Your task to perform on an android device: turn off smart reply in the gmail app Image 0: 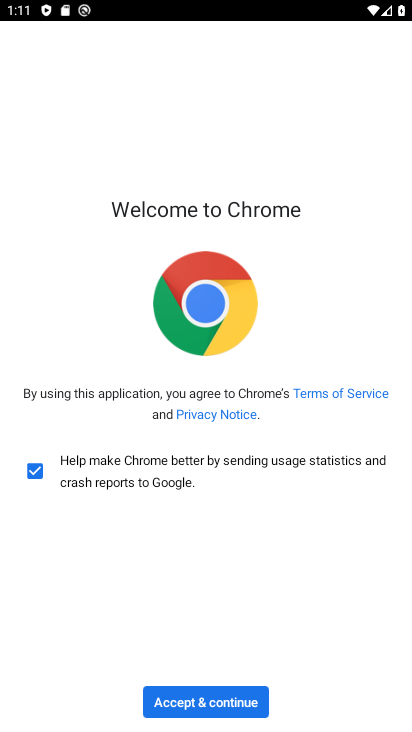
Step 0: press home button
Your task to perform on an android device: turn off smart reply in the gmail app Image 1: 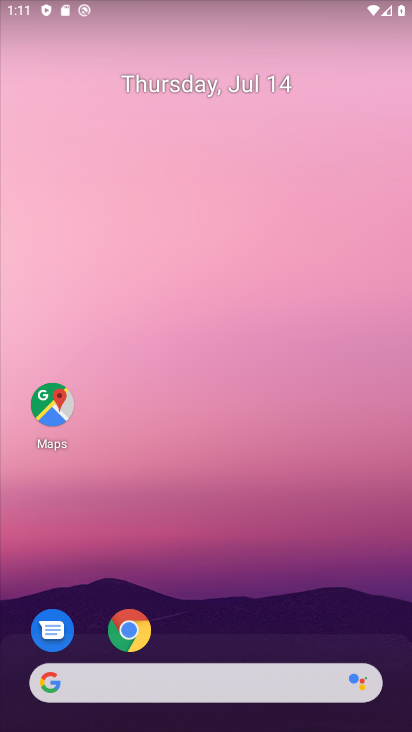
Step 1: drag from (218, 646) to (209, 77)
Your task to perform on an android device: turn off smart reply in the gmail app Image 2: 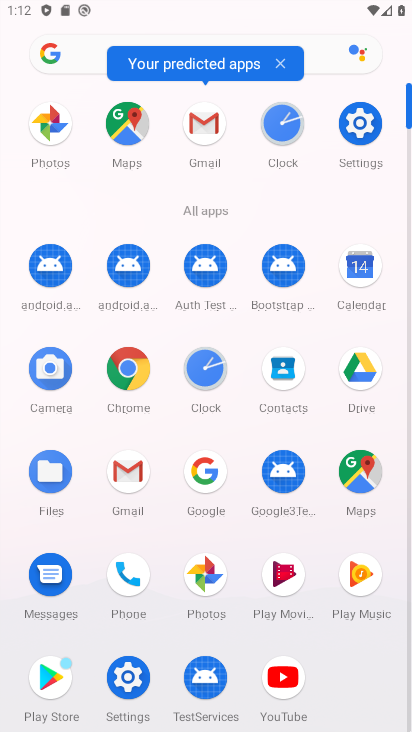
Step 2: click (127, 475)
Your task to perform on an android device: turn off smart reply in the gmail app Image 3: 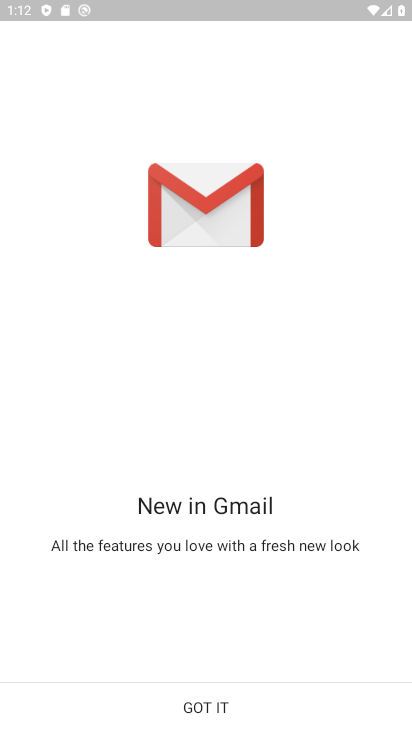
Step 3: click (236, 699)
Your task to perform on an android device: turn off smart reply in the gmail app Image 4: 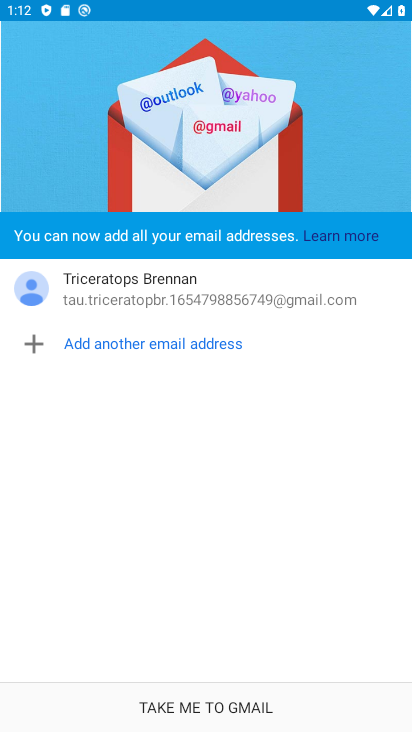
Step 4: click (249, 684)
Your task to perform on an android device: turn off smart reply in the gmail app Image 5: 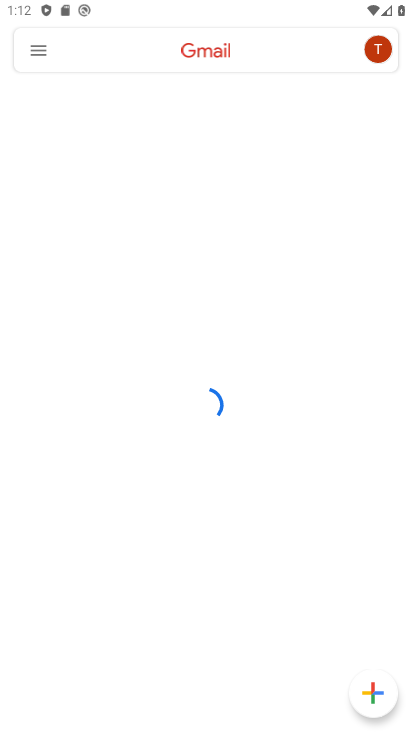
Step 5: click (35, 53)
Your task to perform on an android device: turn off smart reply in the gmail app Image 6: 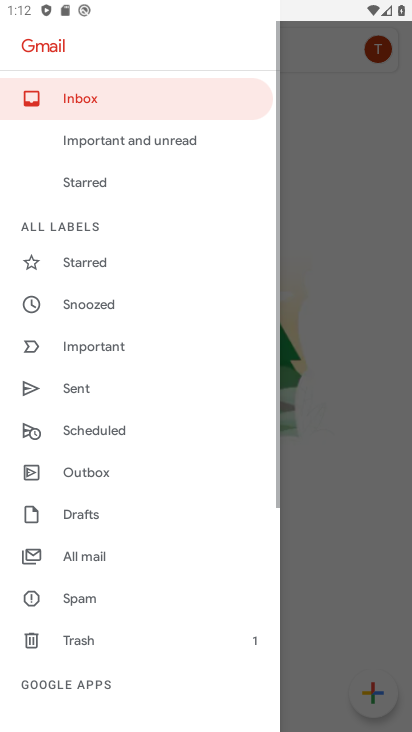
Step 6: drag from (66, 565) to (55, 131)
Your task to perform on an android device: turn off smart reply in the gmail app Image 7: 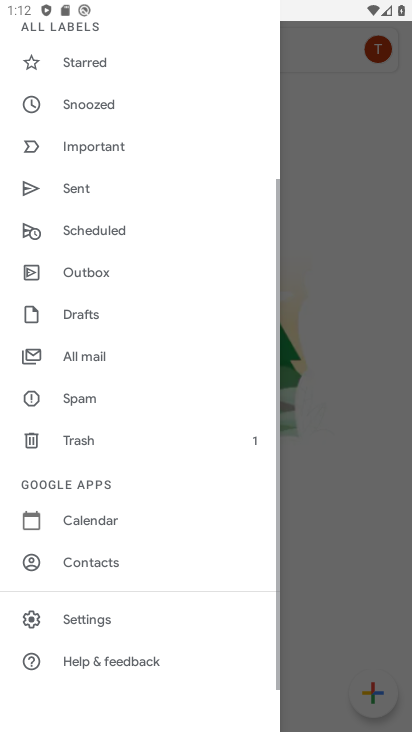
Step 7: click (102, 624)
Your task to perform on an android device: turn off smart reply in the gmail app Image 8: 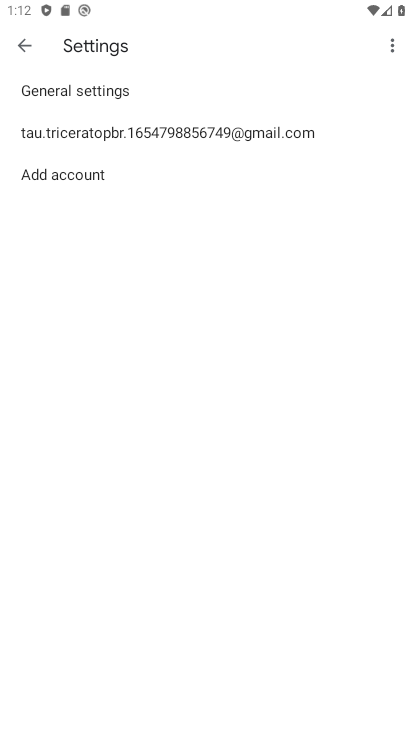
Step 8: click (40, 132)
Your task to perform on an android device: turn off smart reply in the gmail app Image 9: 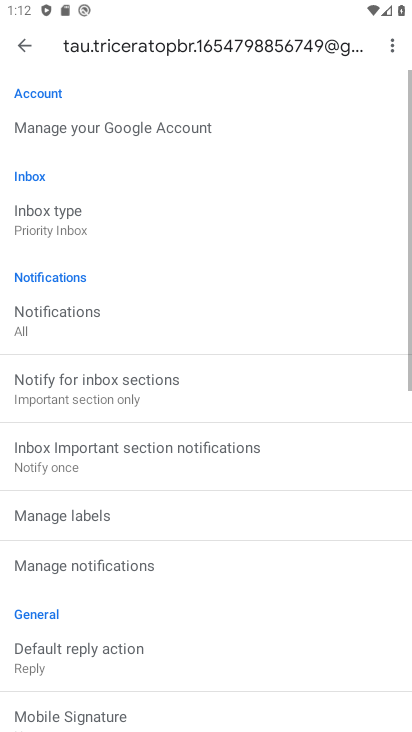
Step 9: drag from (155, 628) to (129, 123)
Your task to perform on an android device: turn off smart reply in the gmail app Image 10: 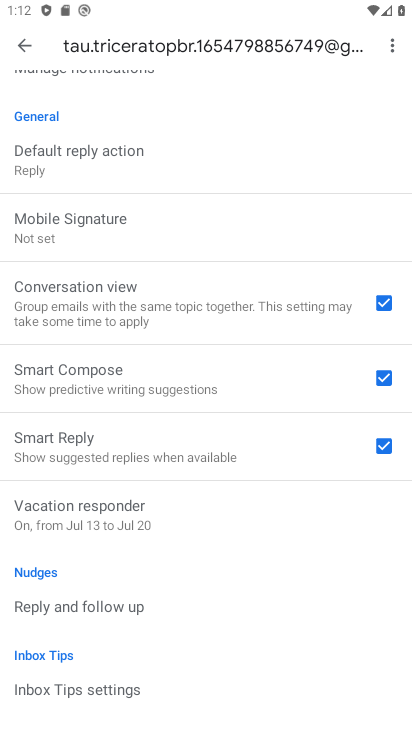
Step 10: click (383, 449)
Your task to perform on an android device: turn off smart reply in the gmail app Image 11: 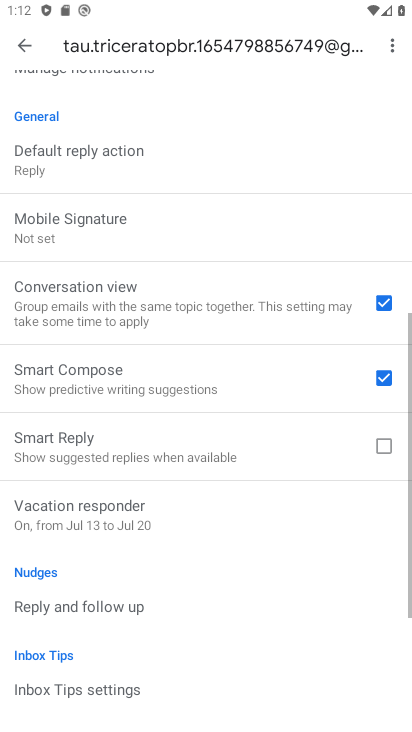
Step 11: task complete